Your task to perform on an android device: Go to display settings Image 0: 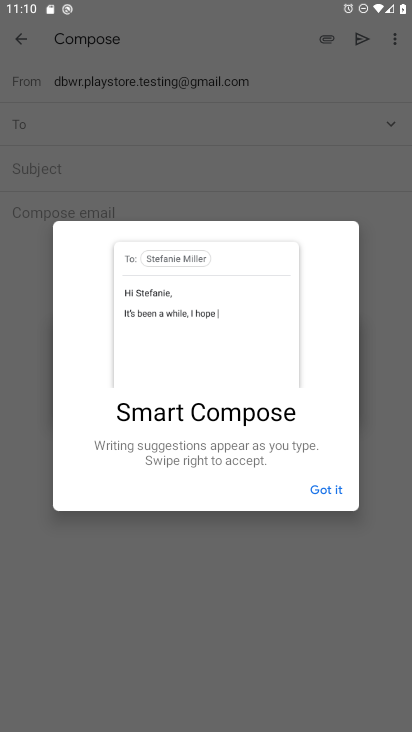
Step 0: press home button
Your task to perform on an android device: Go to display settings Image 1: 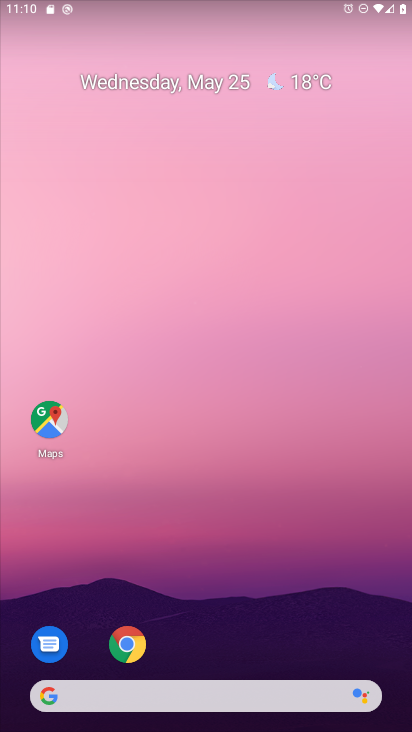
Step 1: drag from (220, 659) to (267, 17)
Your task to perform on an android device: Go to display settings Image 2: 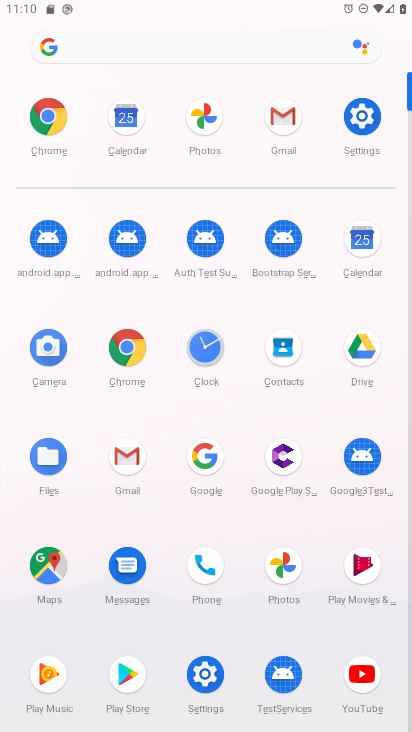
Step 2: click (363, 111)
Your task to perform on an android device: Go to display settings Image 3: 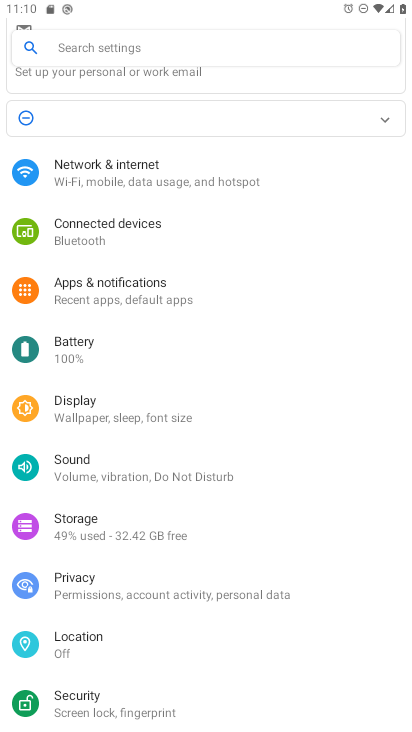
Step 3: click (104, 404)
Your task to perform on an android device: Go to display settings Image 4: 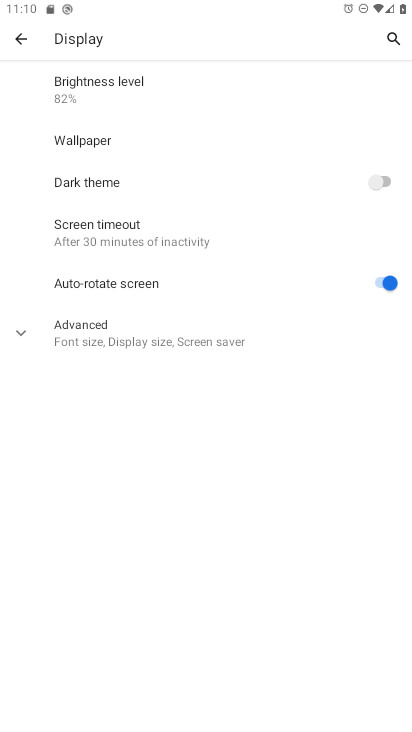
Step 4: click (40, 331)
Your task to perform on an android device: Go to display settings Image 5: 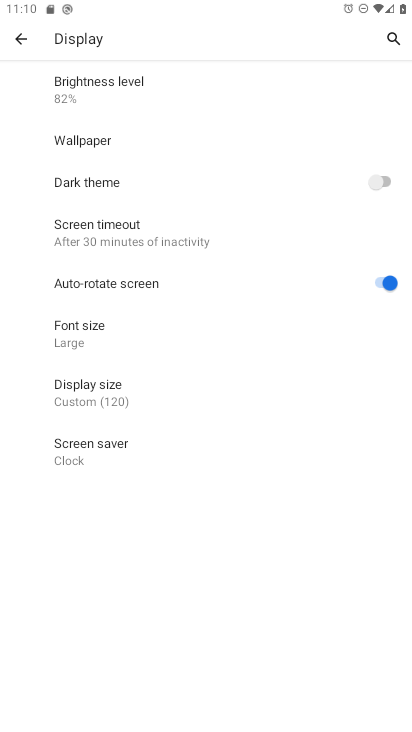
Step 5: task complete